Your task to perform on an android device: Open internet settings Image 0: 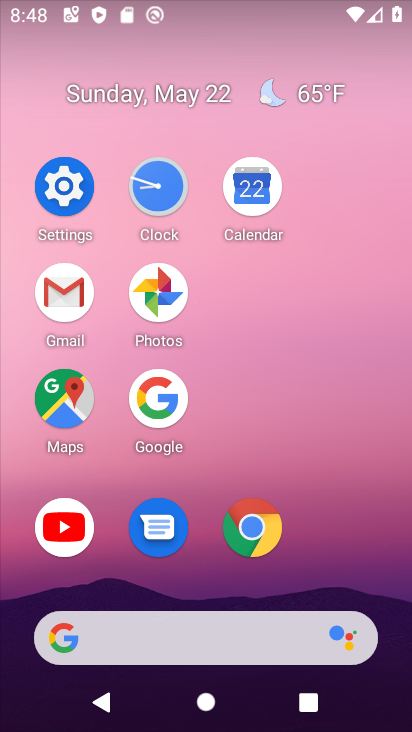
Step 0: click (91, 162)
Your task to perform on an android device: Open internet settings Image 1: 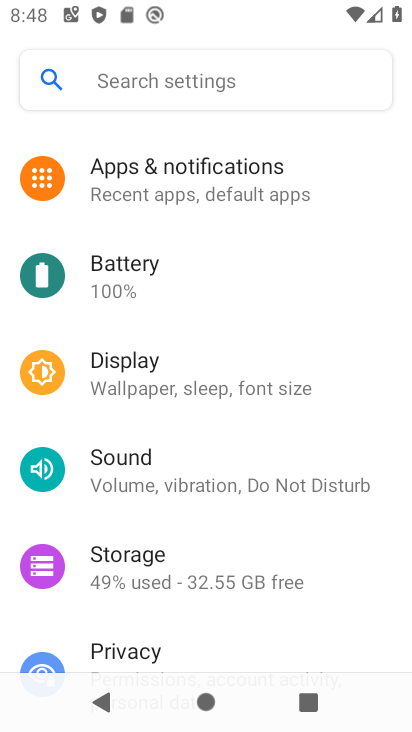
Step 1: drag from (334, 314) to (383, 626)
Your task to perform on an android device: Open internet settings Image 2: 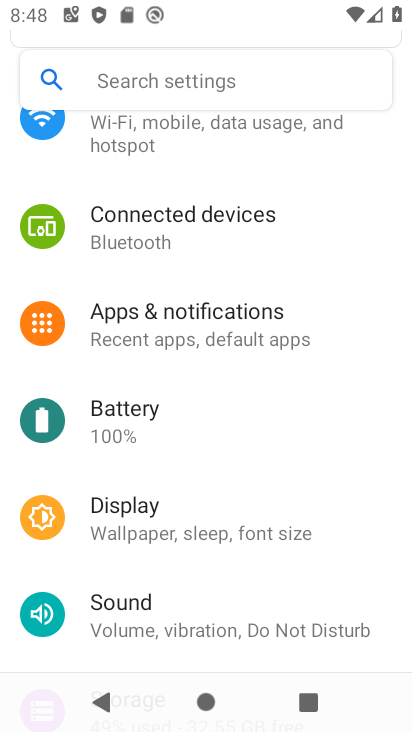
Step 2: click (253, 131)
Your task to perform on an android device: Open internet settings Image 3: 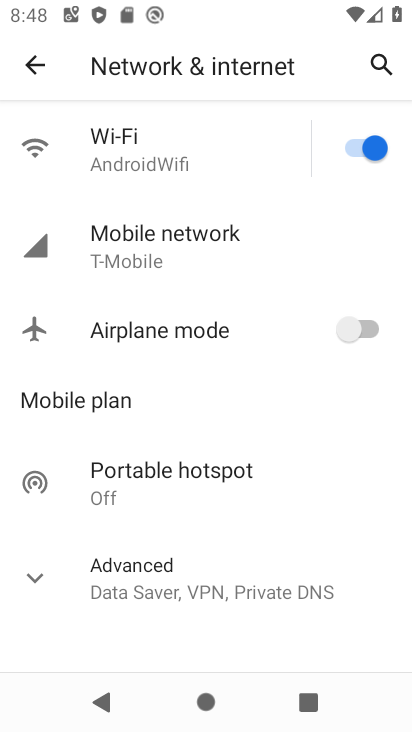
Step 3: click (241, 252)
Your task to perform on an android device: Open internet settings Image 4: 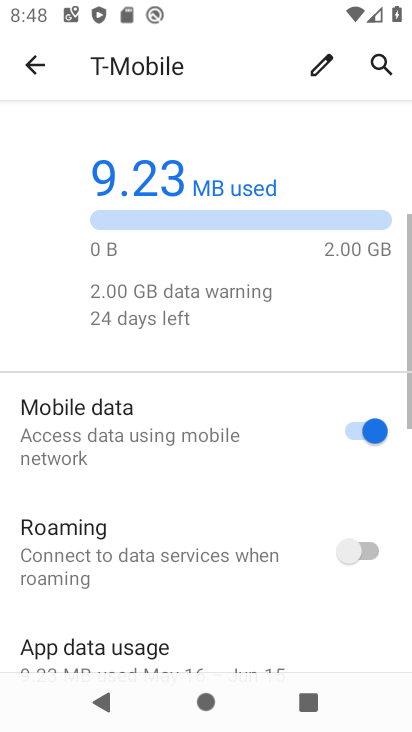
Step 4: task complete